Your task to perform on an android device: Open internet settings Image 0: 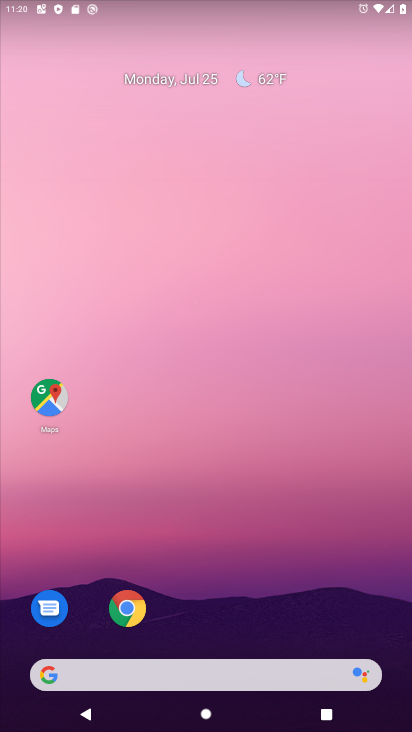
Step 0: drag from (190, 646) to (214, 346)
Your task to perform on an android device: Open internet settings Image 1: 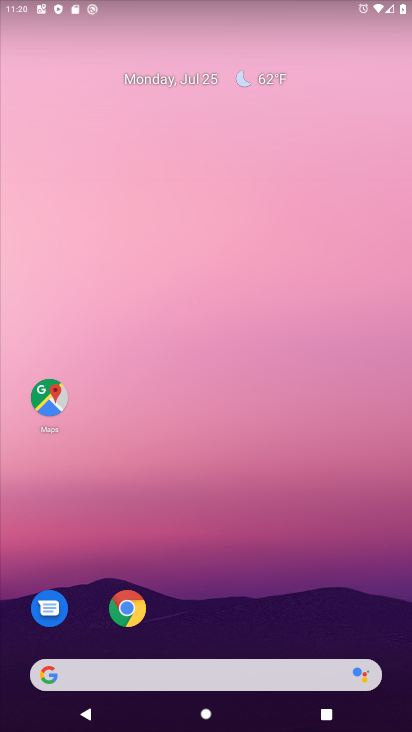
Step 1: drag from (208, 608) to (212, 344)
Your task to perform on an android device: Open internet settings Image 2: 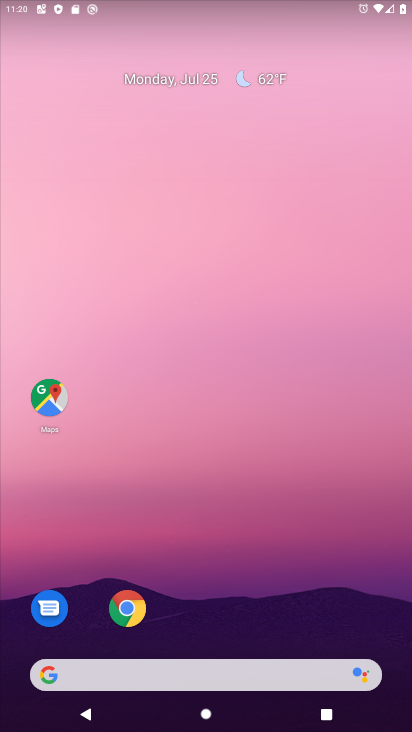
Step 2: drag from (207, 600) to (201, 22)
Your task to perform on an android device: Open internet settings Image 3: 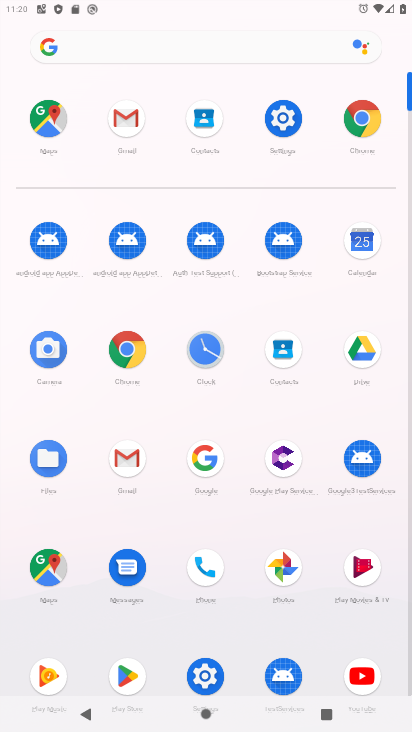
Step 3: click (207, 670)
Your task to perform on an android device: Open internet settings Image 4: 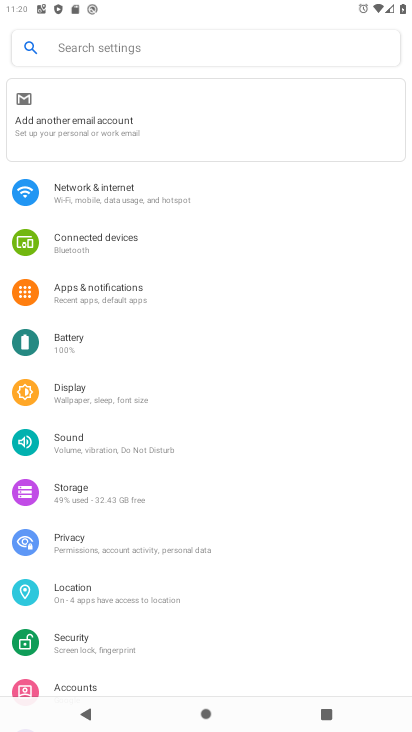
Step 4: click (122, 191)
Your task to perform on an android device: Open internet settings Image 5: 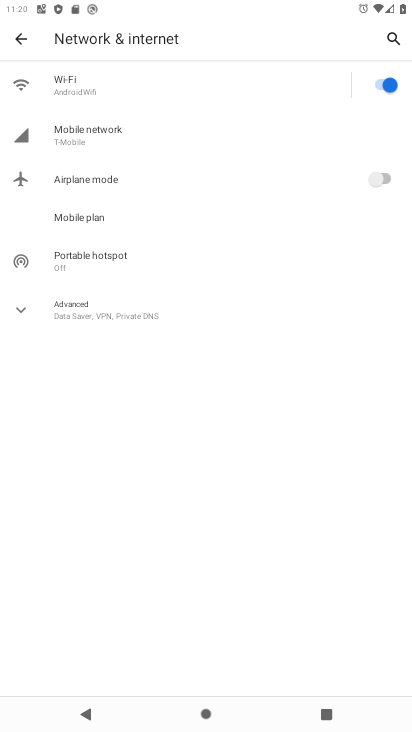
Step 5: task complete